Your task to perform on an android device: all mails in gmail Image 0: 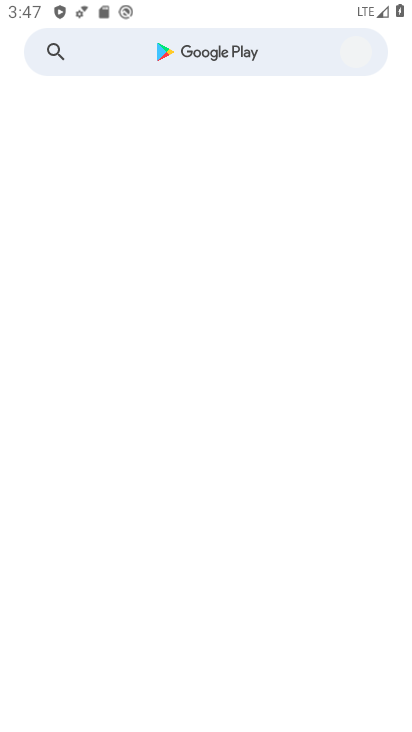
Step 0: press home button
Your task to perform on an android device: all mails in gmail Image 1: 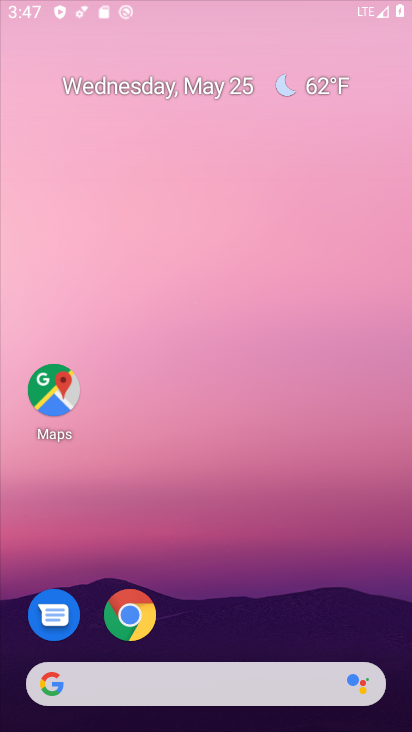
Step 1: drag from (308, 570) to (171, 12)
Your task to perform on an android device: all mails in gmail Image 2: 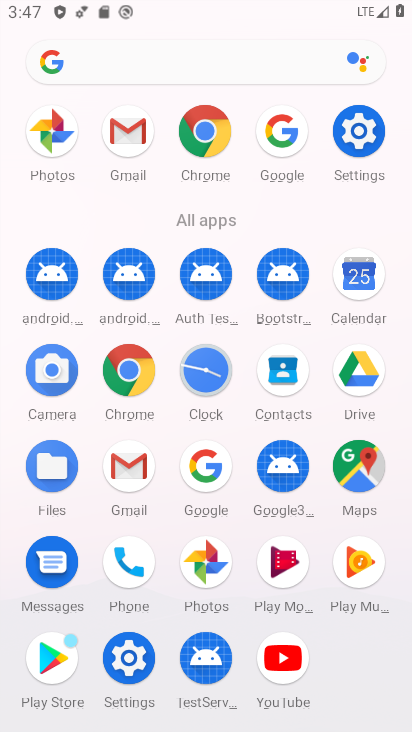
Step 2: click (126, 466)
Your task to perform on an android device: all mails in gmail Image 3: 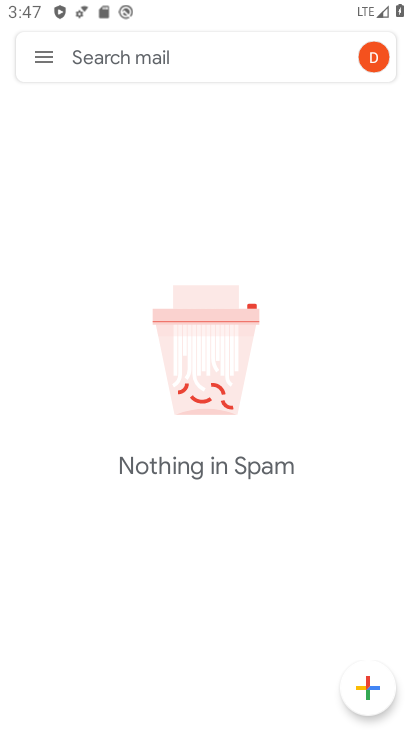
Step 3: click (52, 45)
Your task to perform on an android device: all mails in gmail Image 4: 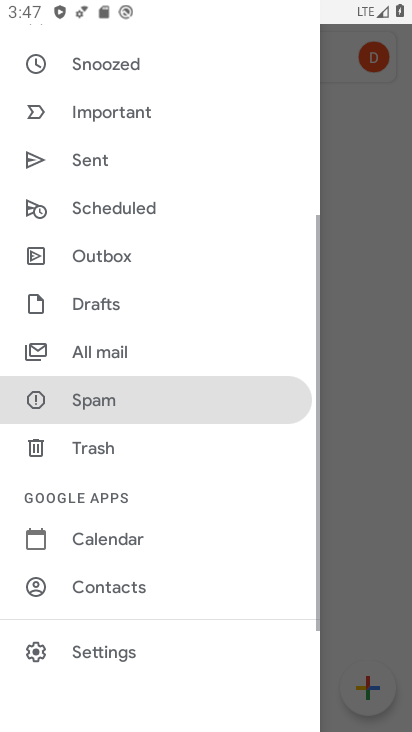
Step 4: click (144, 349)
Your task to perform on an android device: all mails in gmail Image 5: 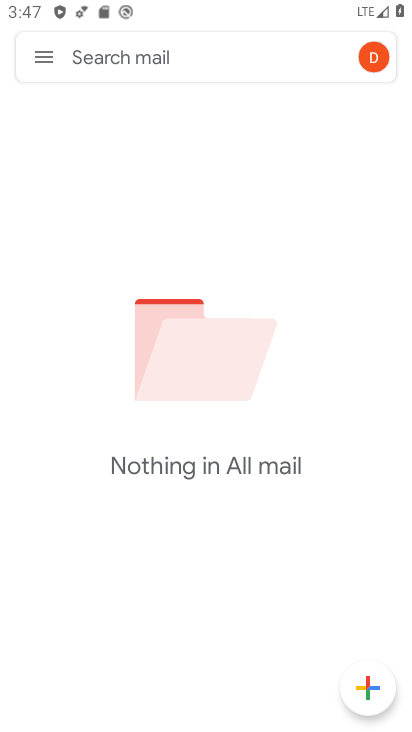
Step 5: task complete